Your task to perform on an android device: Open my contact list Image 0: 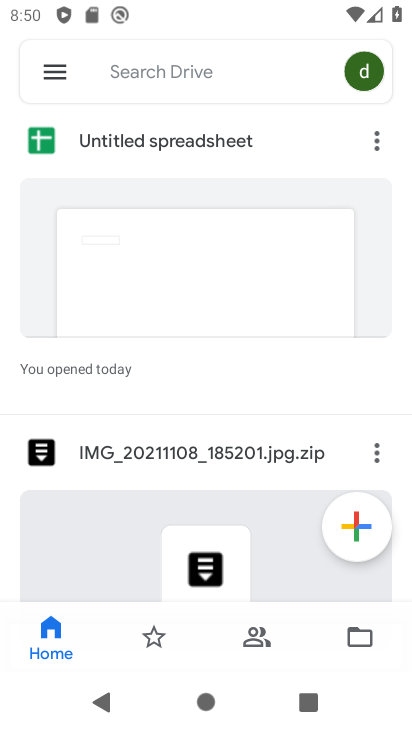
Step 0: press home button
Your task to perform on an android device: Open my contact list Image 1: 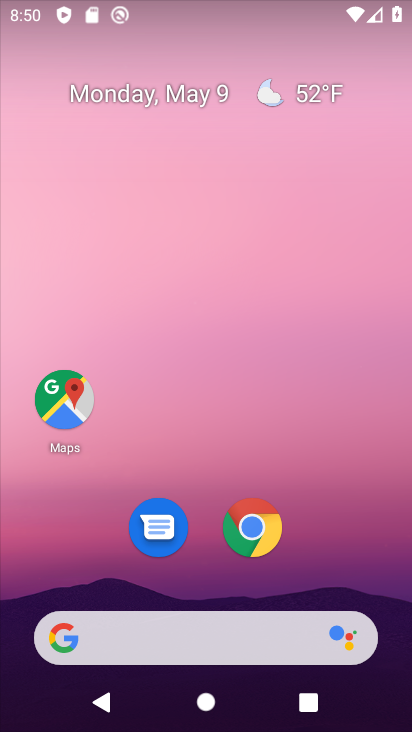
Step 1: drag from (356, 557) to (347, 200)
Your task to perform on an android device: Open my contact list Image 2: 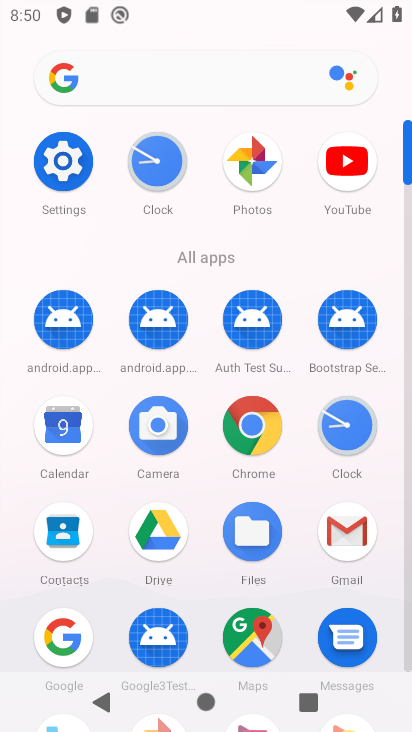
Step 2: click (43, 542)
Your task to perform on an android device: Open my contact list Image 3: 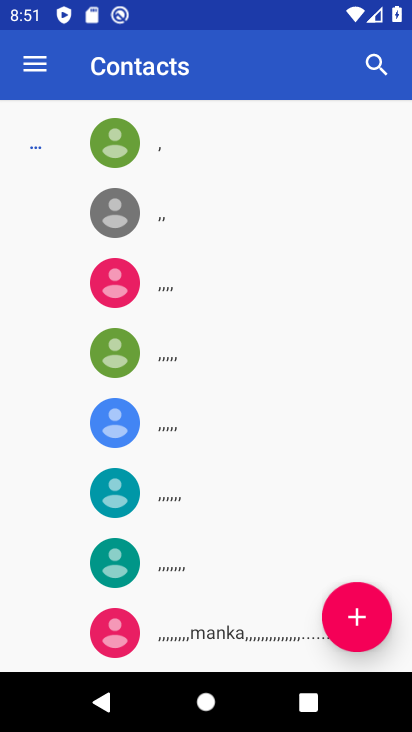
Step 3: task complete